Your task to perform on an android device: Toggle the flashlight Image 0: 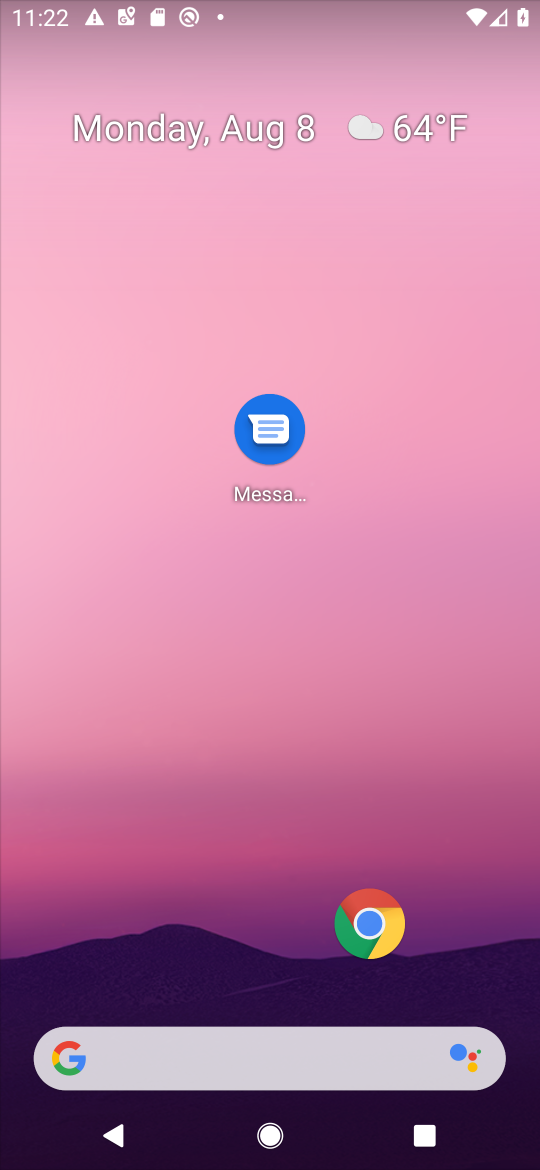
Step 0: drag from (40, 1120) to (222, 282)
Your task to perform on an android device: Toggle the flashlight Image 1: 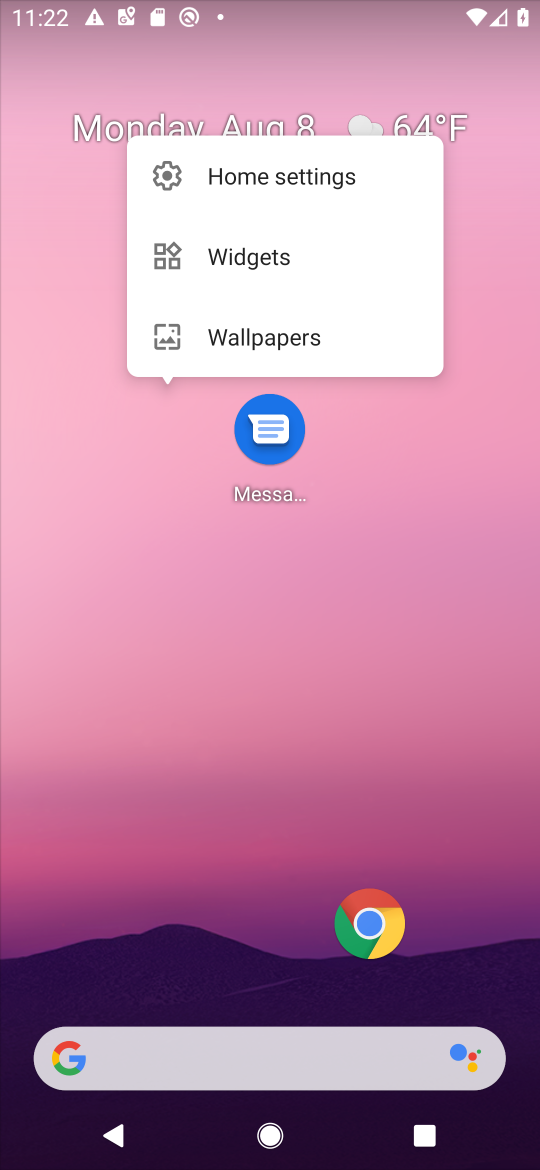
Step 1: task complete